Your task to perform on an android device: Open Amazon Image 0: 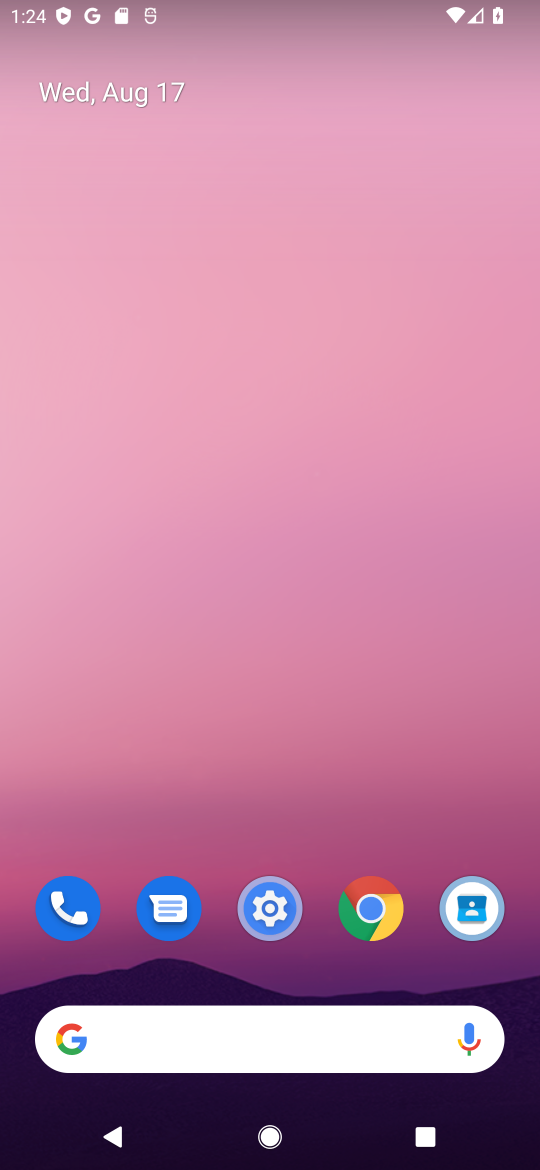
Step 0: press home button
Your task to perform on an android device: Open Amazon Image 1: 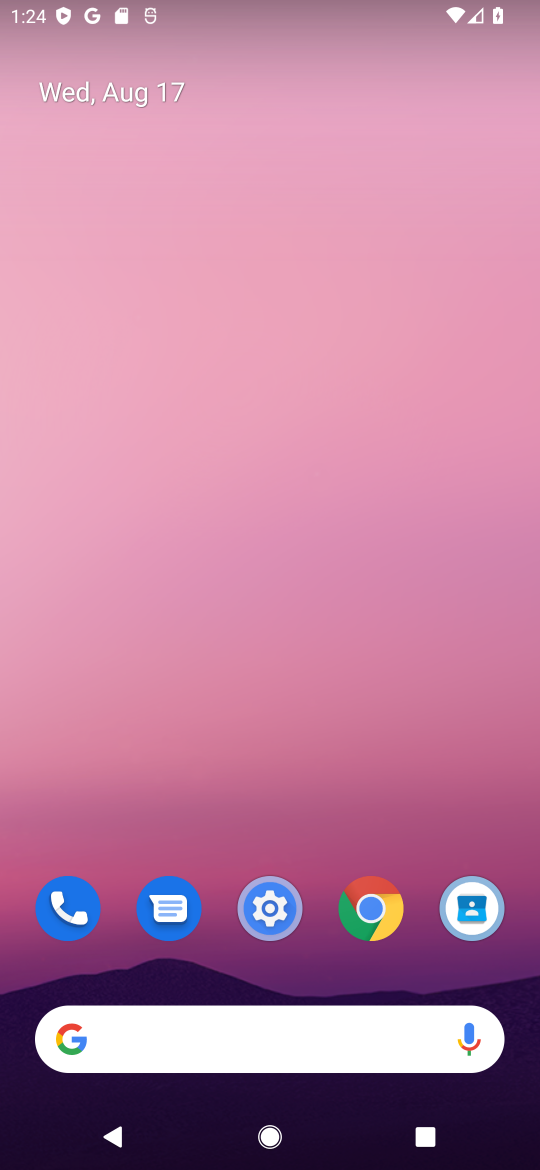
Step 1: click (73, 1046)
Your task to perform on an android device: Open Amazon Image 2: 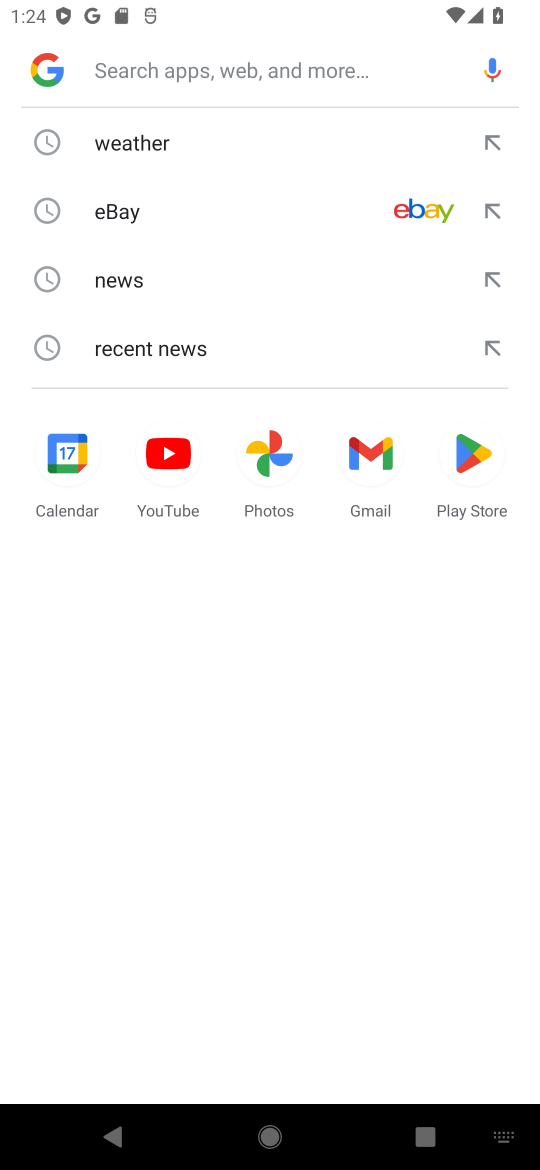
Step 2: press enter
Your task to perform on an android device: Open Amazon Image 3: 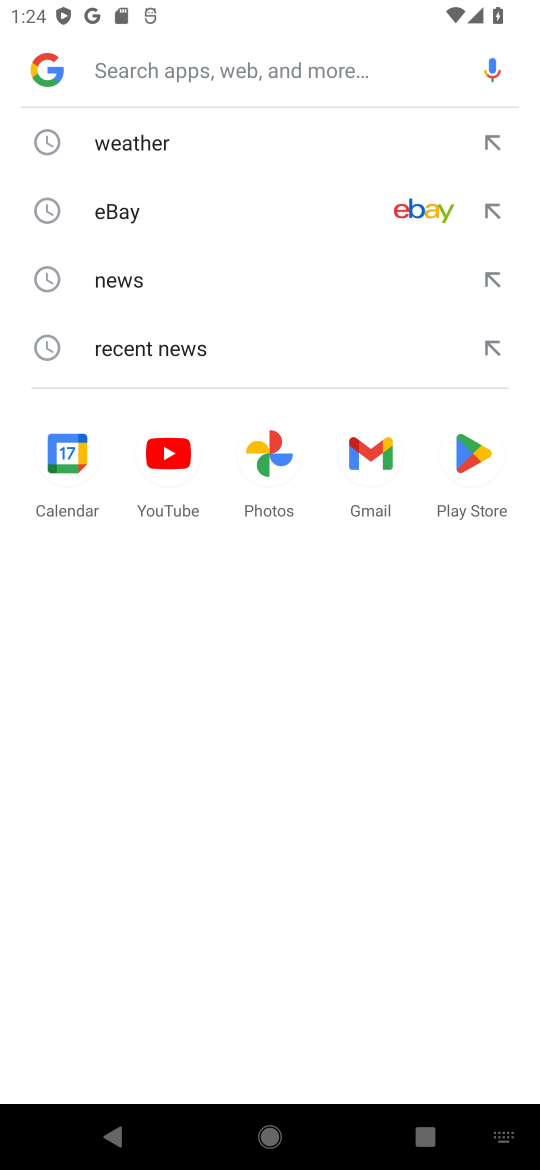
Step 3: type "Amazon"
Your task to perform on an android device: Open Amazon Image 4: 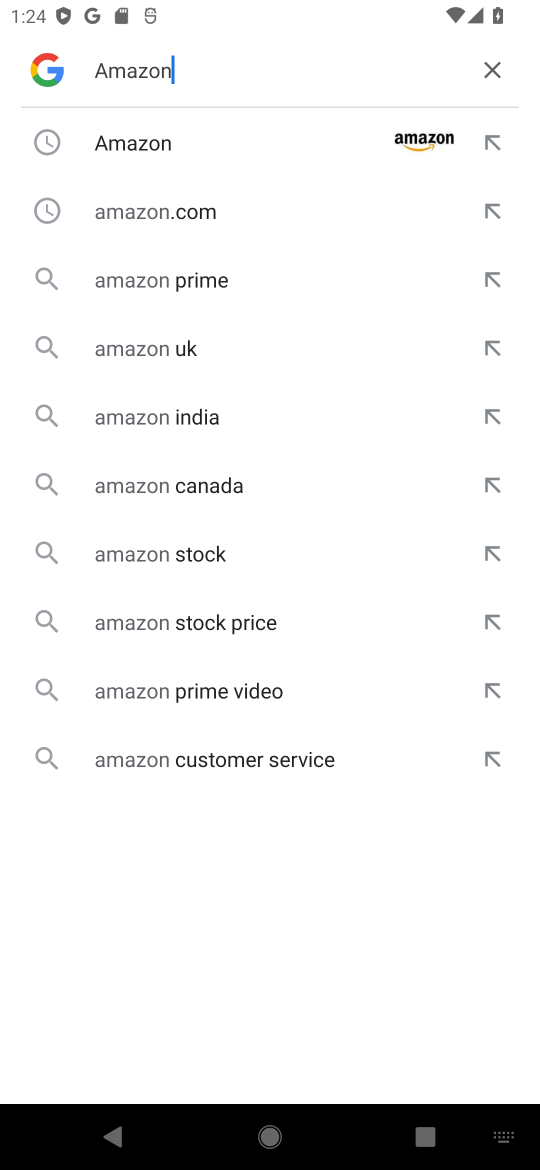
Step 4: click (139, 143)
Your task to perform on an android device: Open Amazon Image 5: 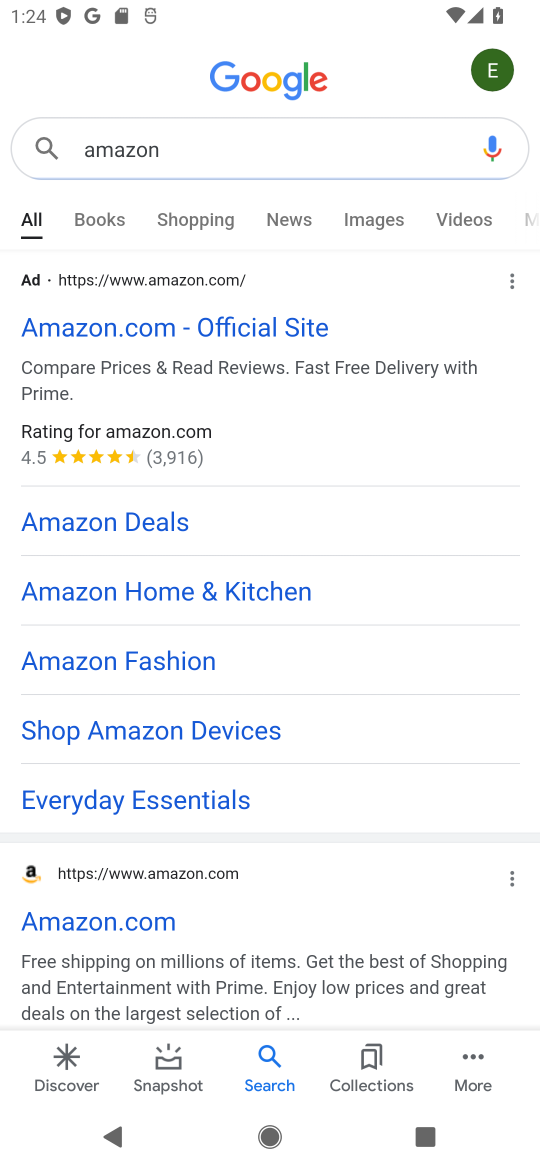
Step 5: click (103, 330)
Your task to perform on an android device: Open Amazon Image 6: 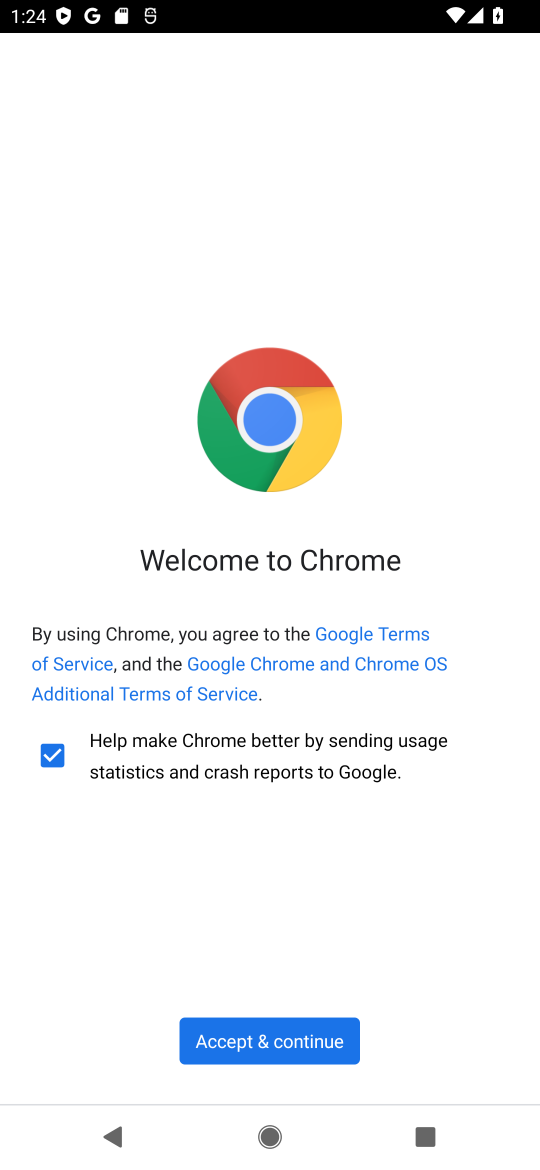
Step 6: click (246, 1035)
Your task to perform on an android device: Open Amazon Image 7: 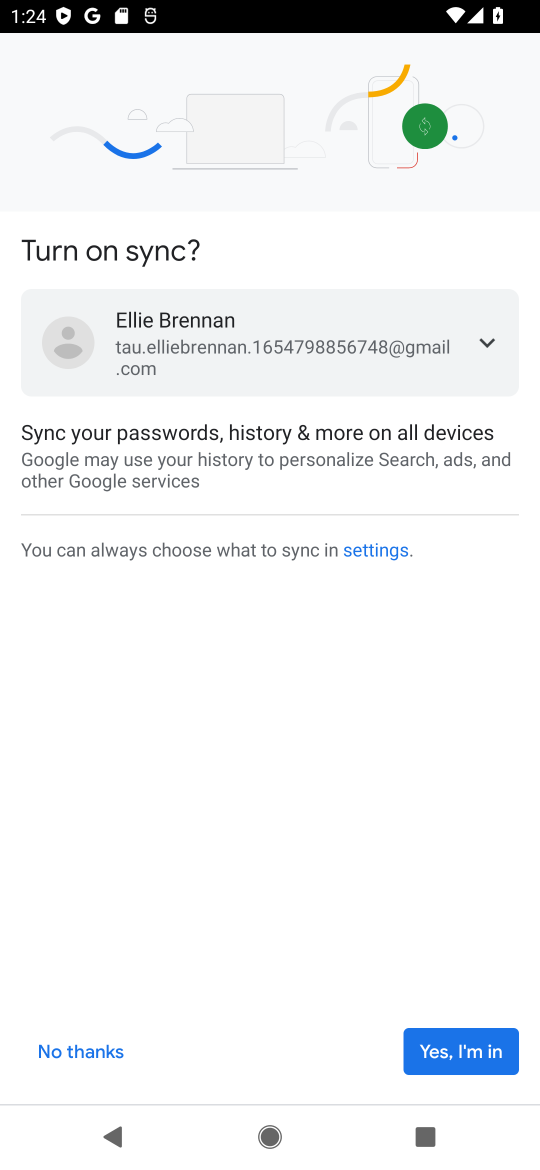
Step 7: click (458, 1058)
Your task to perform on an android device: Open Amazon Image 8: 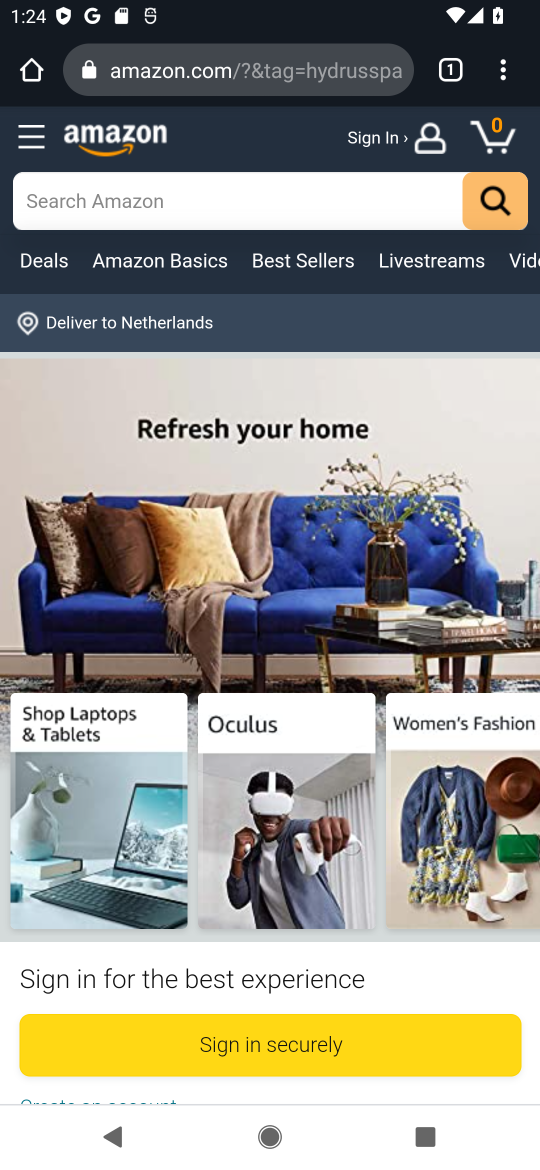
Step 8: task complete